Your task to perform on an android device: turn notification dots on Image 0: 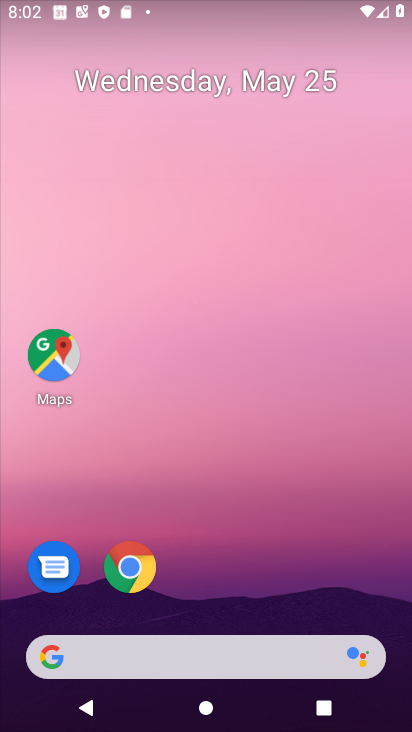
Step 0: drag from (232, 608) to (256, 58)
Your task to perform on an android device: turn notification dots on Image 1: 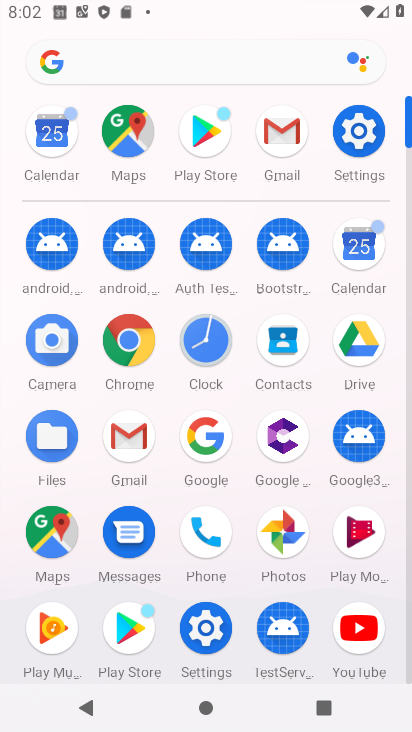
Step 1: click (354, 120)
Your task to perform on an android device: turn notification dots on Image 2: 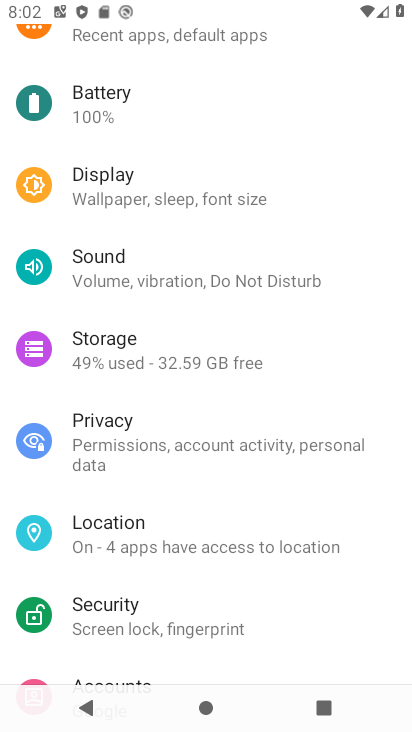
Step 2: drag from (245, 323) to (240, 607)
Your task to perform on an android device: turn notification dots on Image 3: 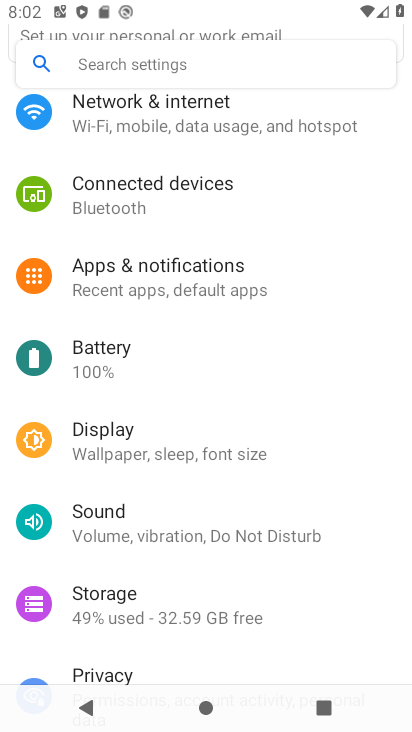
Step 3: click (209, 299)
Your task to perform on an android device: turn notification dots on Image 4: 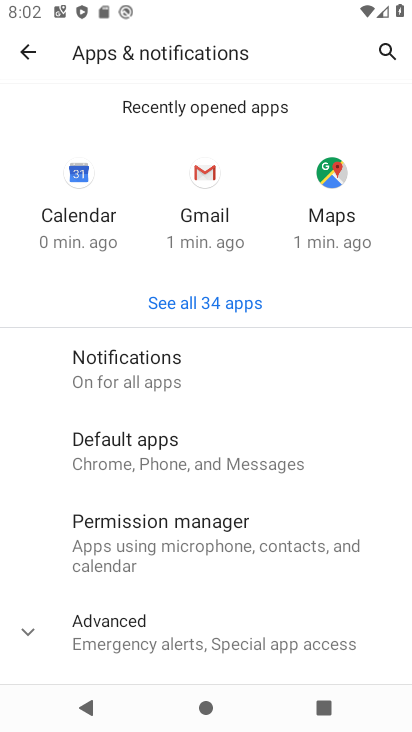
Step 4: click (234, 381)
Your task to perform on an android device: turn notification dots on Image 5: 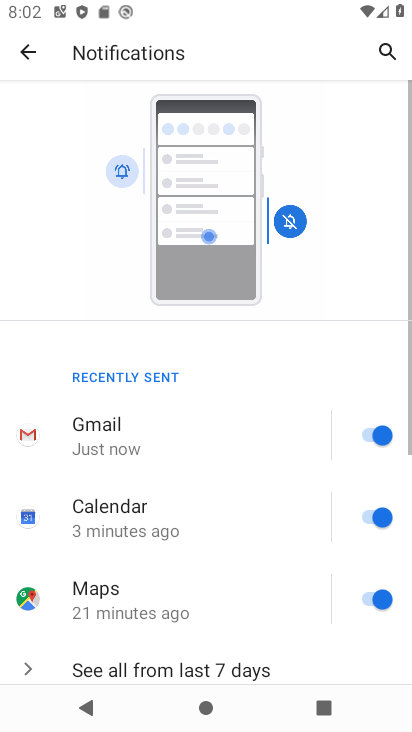
Step 5: drag from (212, 585) to (263, 292)
Your task to perform on an android device: turn notification dots on Image 6: 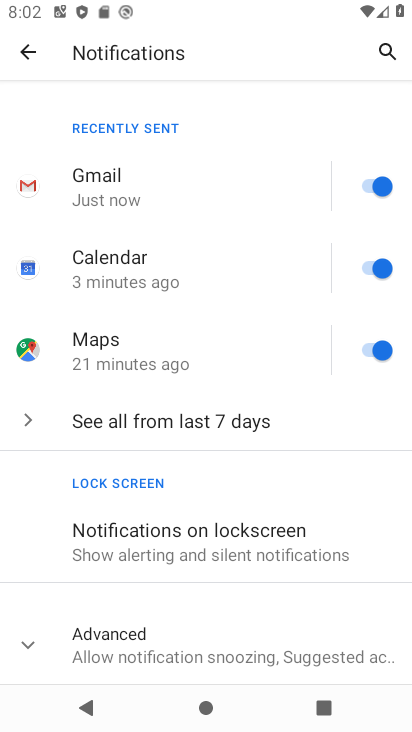
Step 6: click (278, 619)
Your task to perform on an android device: turn notification dots on Image 7: 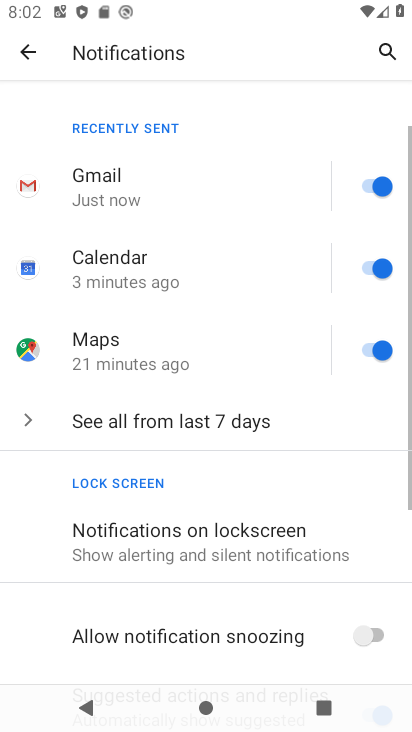
Step 7: drag from (289, 603) to (302, 467)
Your task to perform on an android device: turn notification dots on Image 8: 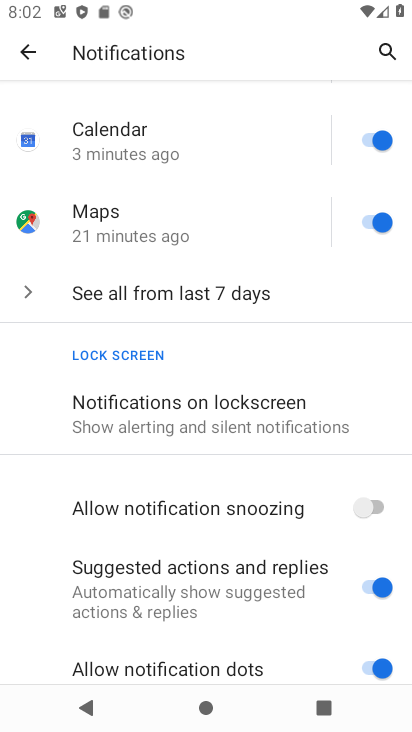
Step 8: click (262, 659)
Your task to perform on an android device: turn notification dots on Image 9: 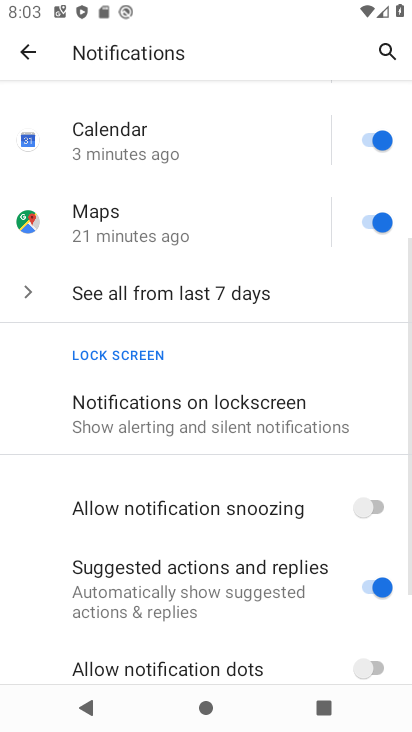
Step 9: click (377, 638)
Your task to perform on an android device: turn notification dots on Image 10: 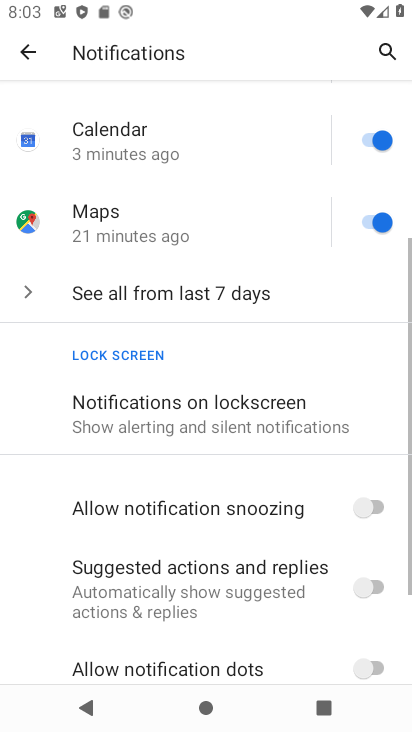
Step 10: task complete